Your task to perform on an android device: Open Google Image 0: 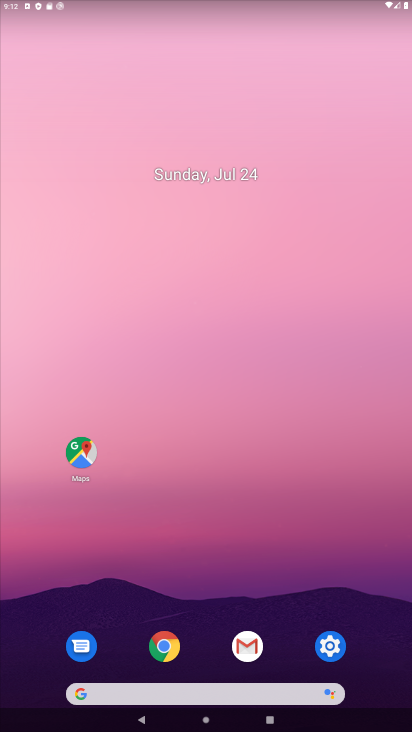
Step 0: click (85, 699)
Your task to perform on an android device: Open Google Image 1: 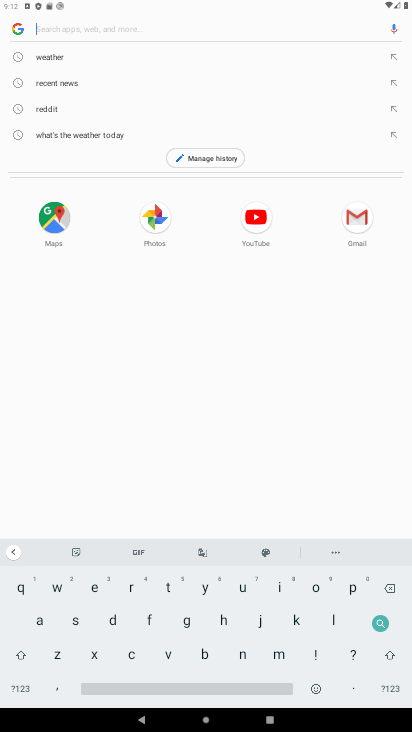
Step 1: click (20, 29)
Your task to perform on an android device: Open Google Image 2: 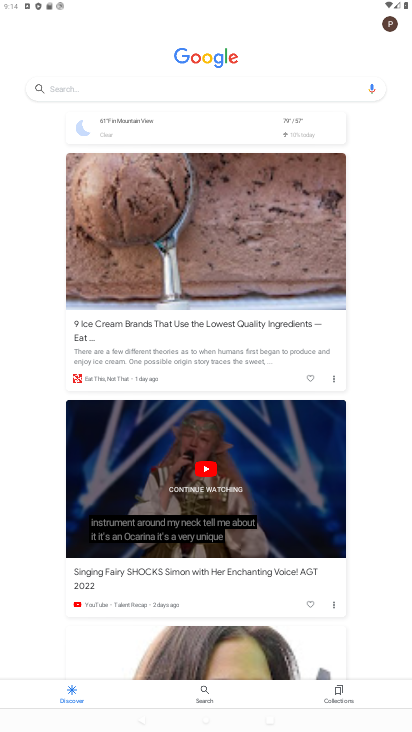
Step 2: task complete